Your task to perform on an android device: star an email in the gmail app Image 0: 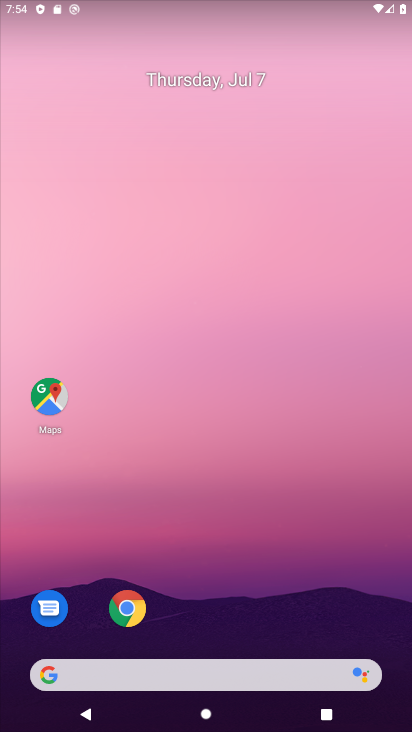
Step 0: drag from (367, 620) to (371, 73)
Your task to perform on an android device: star an email in the gmail app Image 1: 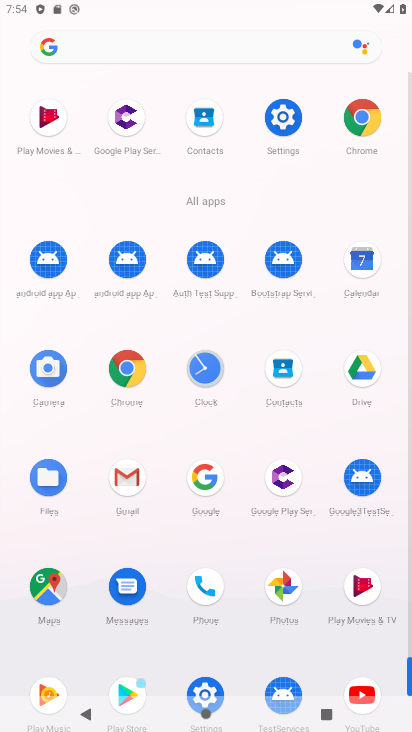
Step 1: click (129, 476)
Your task to perform on an android device: star an email in the gmail app Image 2: 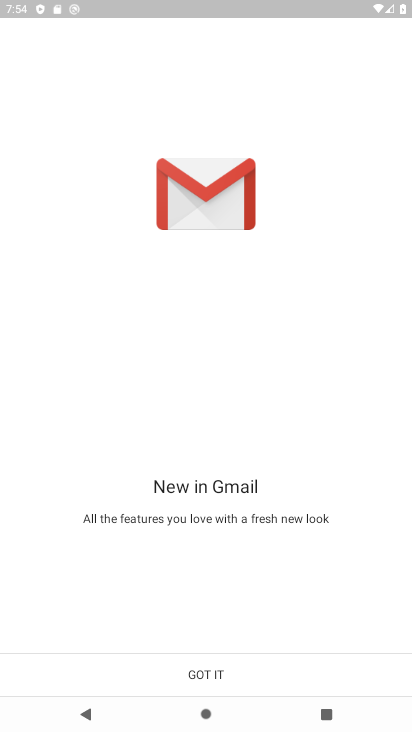
Step 2: click (200, 678)
Your task to perform on an android device: star an email in the gmail app Image 3: 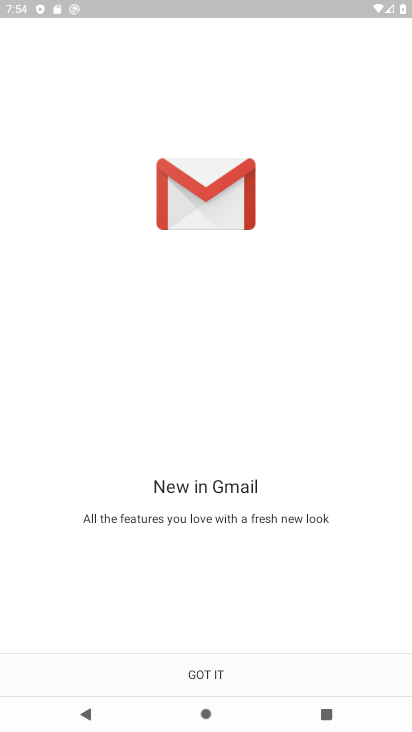
Step 3: click (200, 678)
Your task to perform on an android device: star an email in the gmail app Image 4: 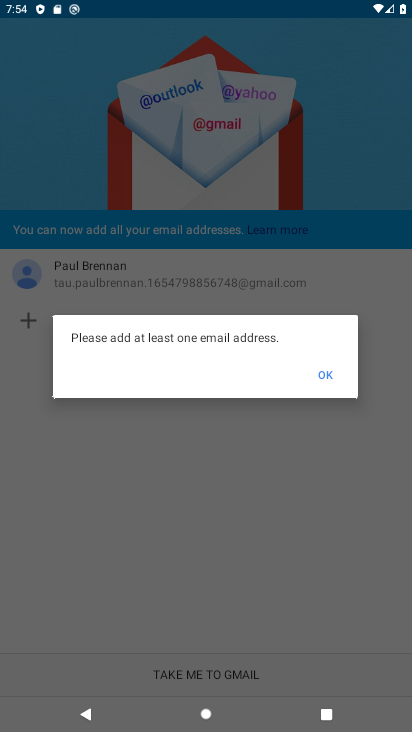
Step 4: click (403, 527)
Your task to perform on an android device: star an email in the gmail app Image 5: 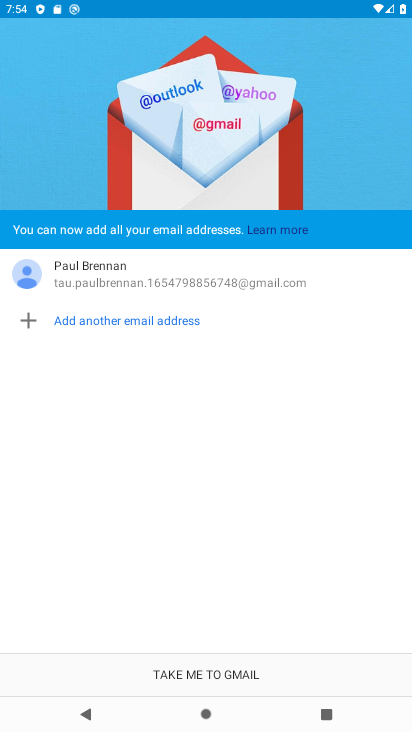
Step 5: task complete